Your task to perform on an android device: find which apps use the phone's location Image 0: 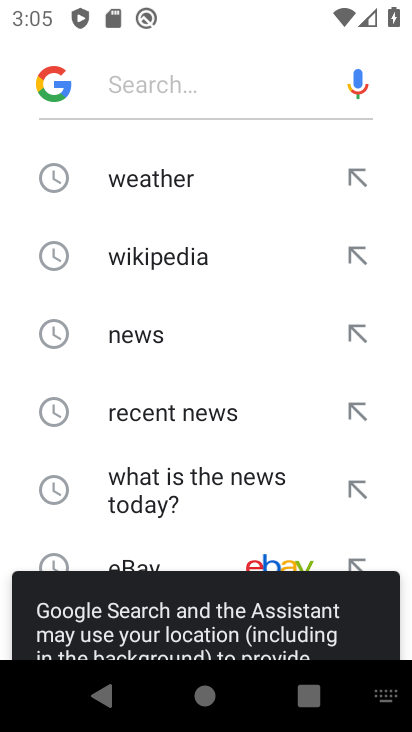
Step 0: press home button
Your task to perform on an android device: find which apps use the phone's location Image 1: 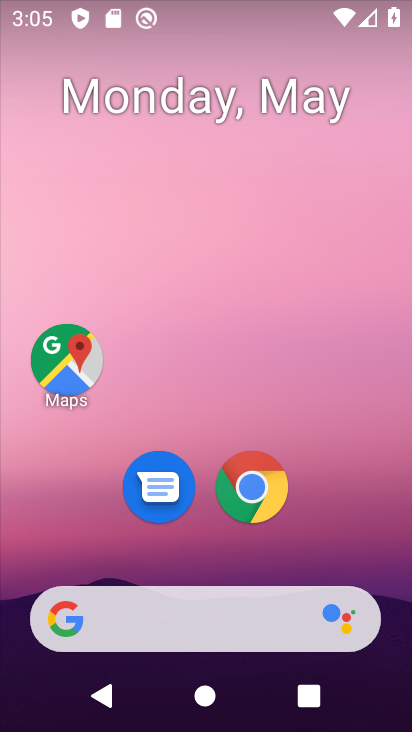
Step 1: drag from (161, 564) to (185, 101)
Your task to perform on an android device: find which apps use the phone's location Image 2: 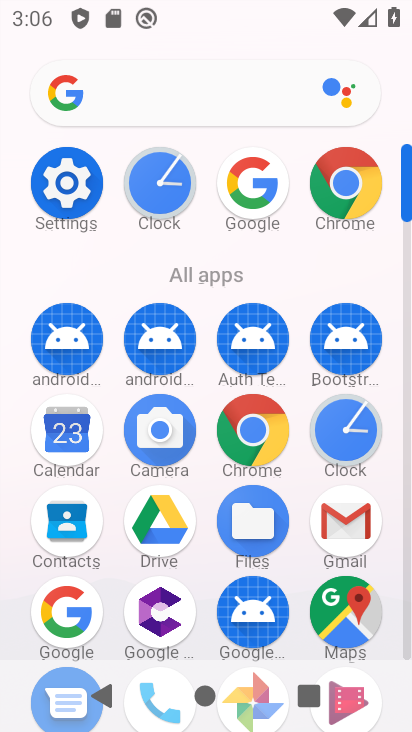
Step 2: click (66, 180)
Your task to perform on an android device: find which apps use the phone's location Image 3: 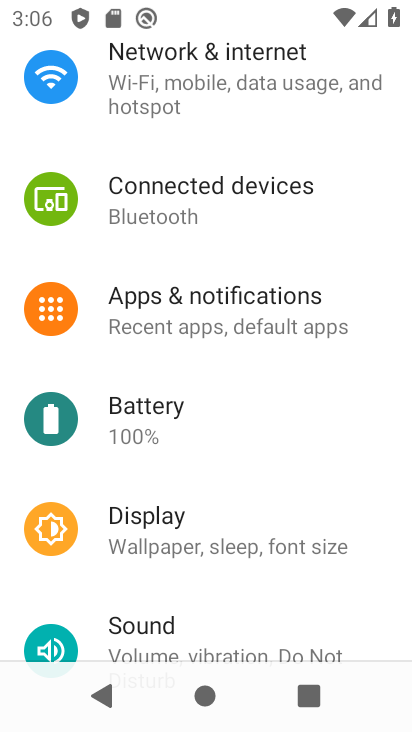
Step 3: drag from (183, 639) to (207, 220)
Your task to perform on an android device: find which apps use the phone's location Image 4: 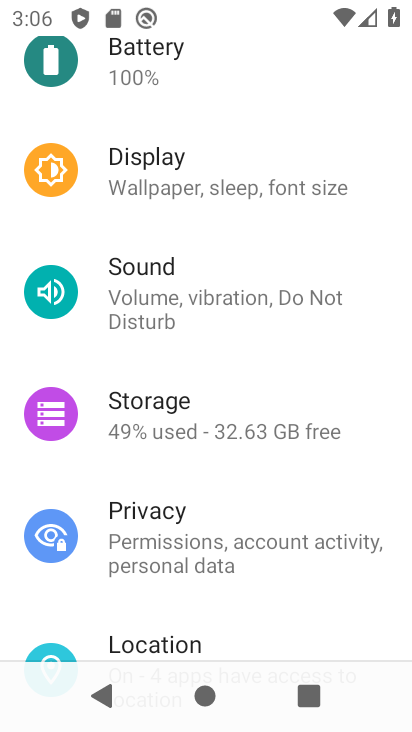
Step 4: click (168, 648)
Your task to perform on an android device: find which apps use the phone's location Image 5: 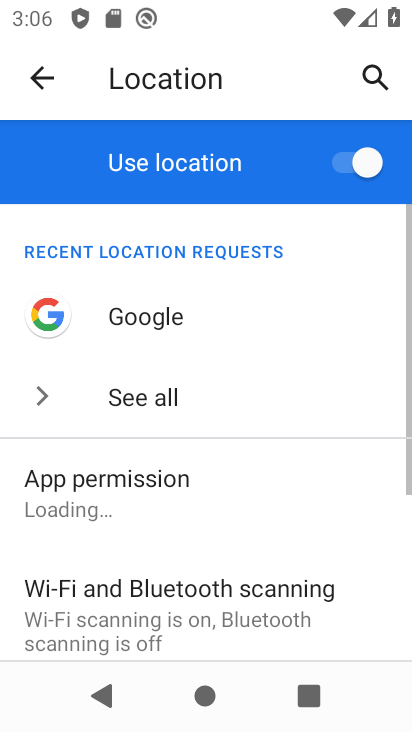
Step 5: click (150, 487)
Your task to perform on an android device: find which apps use the phone's location Image 6: 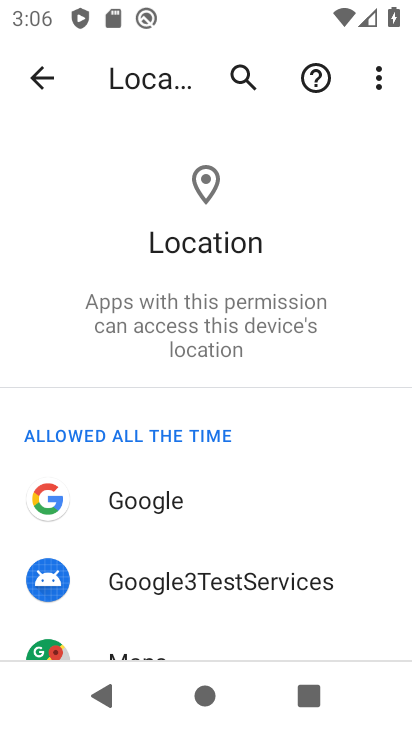
Step 6: task complete